Your task to perform on an android device: star an email in the gmail app Image 0: 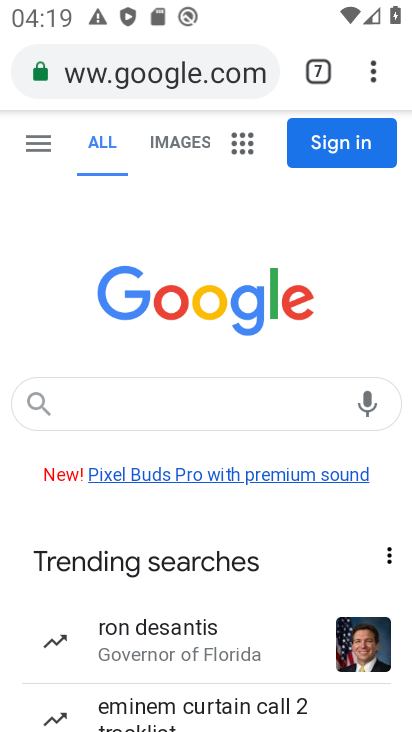
Step 0: press back button
Your task to perform on an android device: star an email in the gmail app Image 1: 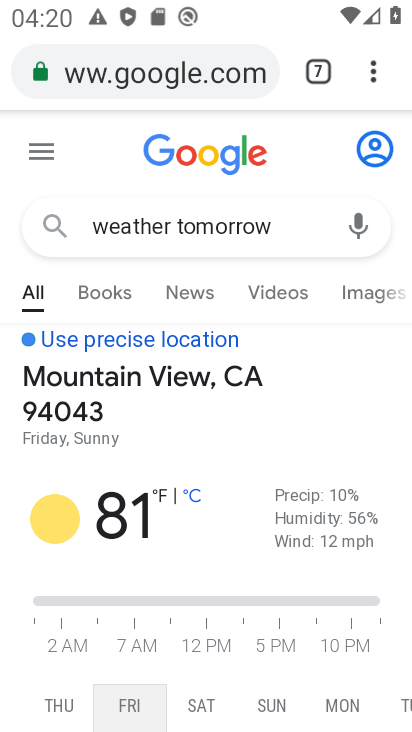
Step 1: press home button
Your task to perform on an android device: star an email in the gmail app Image 2: 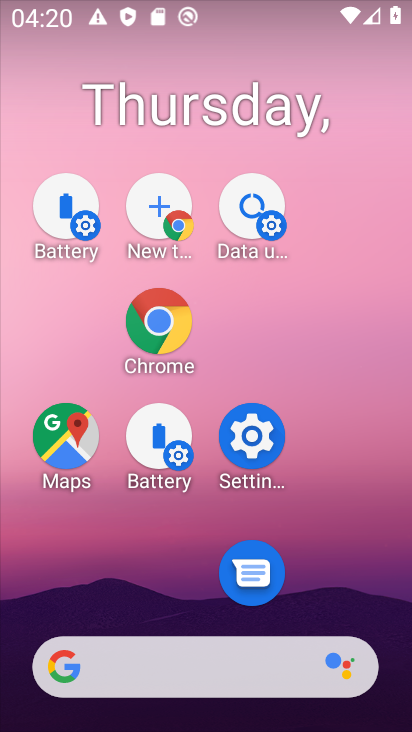
Step 2: drag from (274, 500) to (211, 92)
Your task to perform on an android device: star an email in the gmail app Image 3: 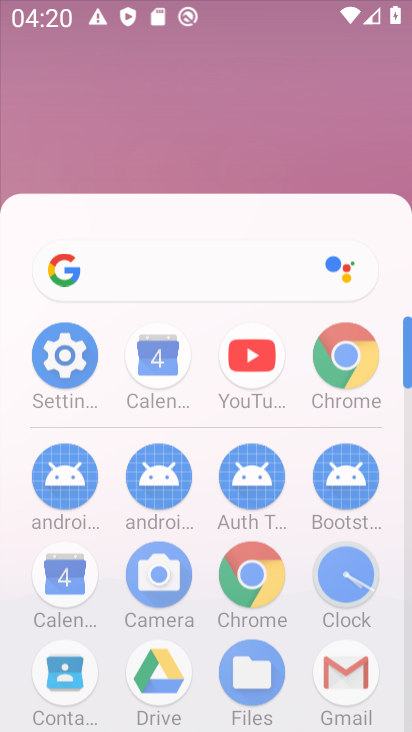
Step 3: drag from (297, 465) to (242, 203)
Your task to perform on an android device: star an email in the gmail app Image 4: 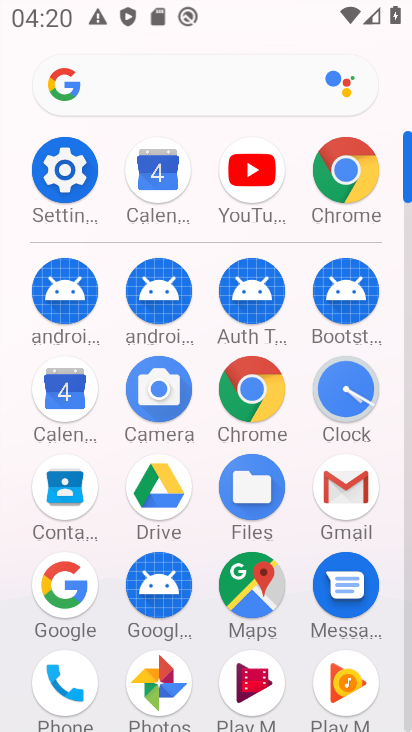
Step 4: drag from (287, 393) to (218, 199)
Your task to perform on an android device: star an email in the gmail app Image 5: 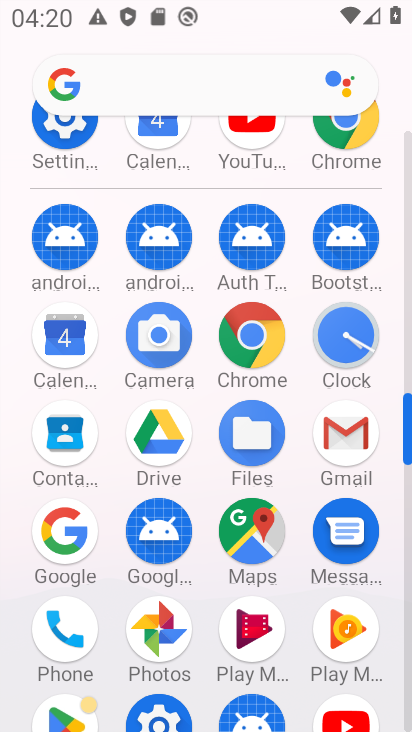
Step 5: click (349, 447)
Your task to perform on an android device: star an email in the gmail app Image 6: 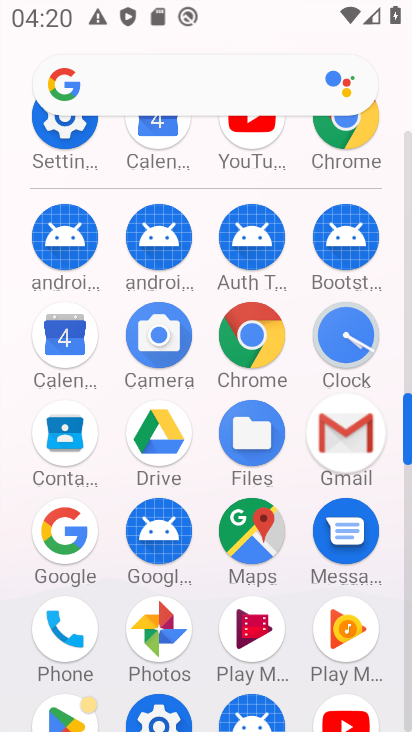
Step 6: click (349, 451)
Your task to perform on an android device: star an email in the gmail app Image 7: 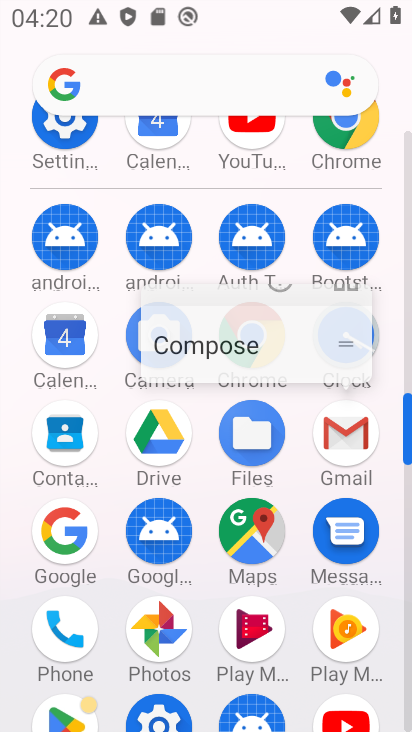
Step 7: click (348, 452)
Your task to perform on an android device: star an email in the gmail app Image 8: 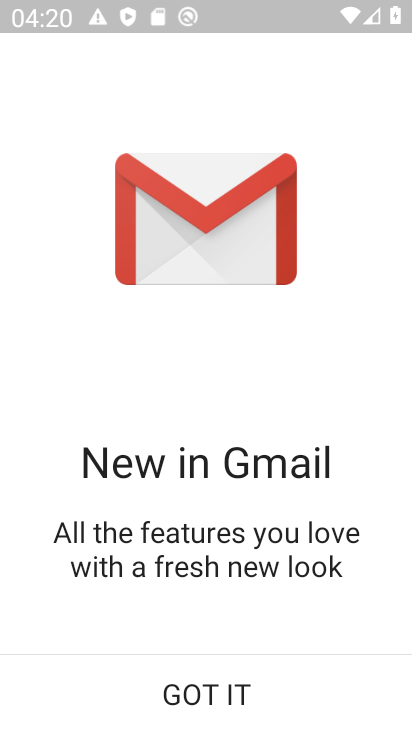
Step 8: click (242, 692)
Your task to perform on an android device: star an email in the gmail app Image 9: 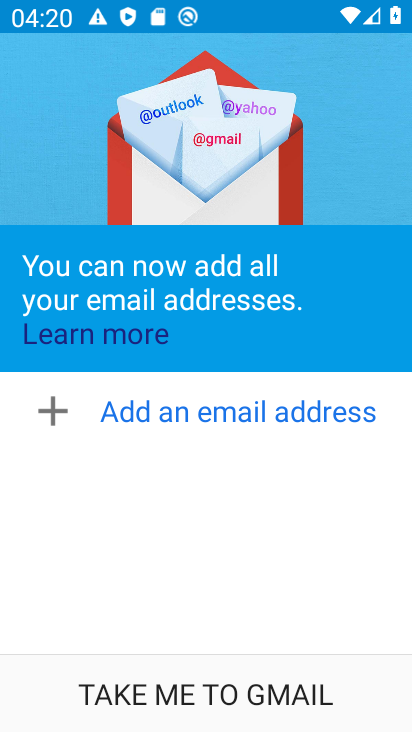
Step 9: press back button
Your task to perform on an android device: star an email in the gmail app Image 10: 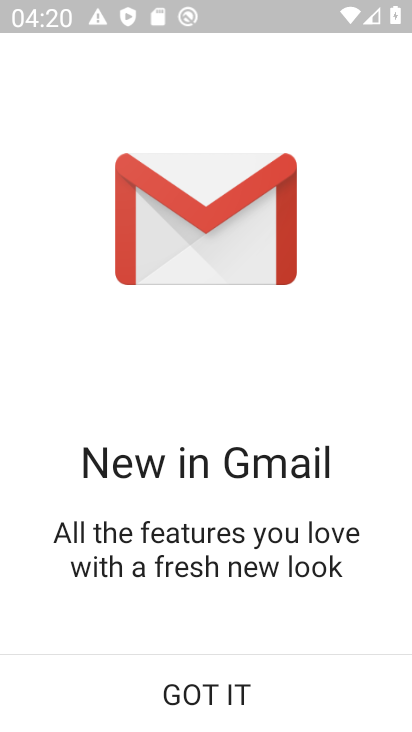
Step 10: click (215, 679)
Your task to perform on an android device: star an email in the gmail app Image 11: 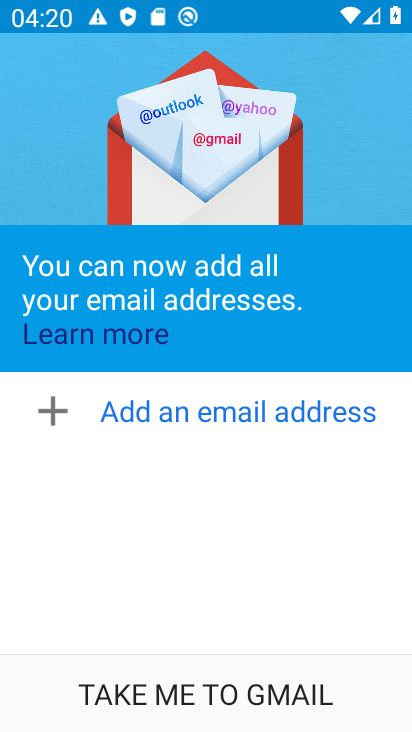
Step 11: press back button
Your task to perform on an android device: star an email in the gmail app Image 12: 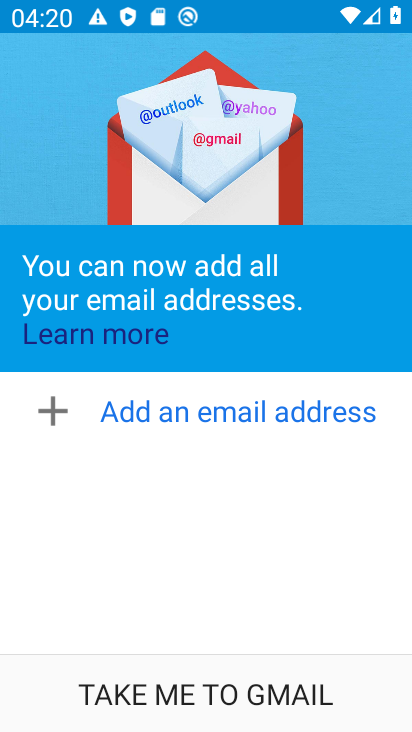
Step 12: press back button
Your task to perform on an android device: star an email in the gmail app Image 13: 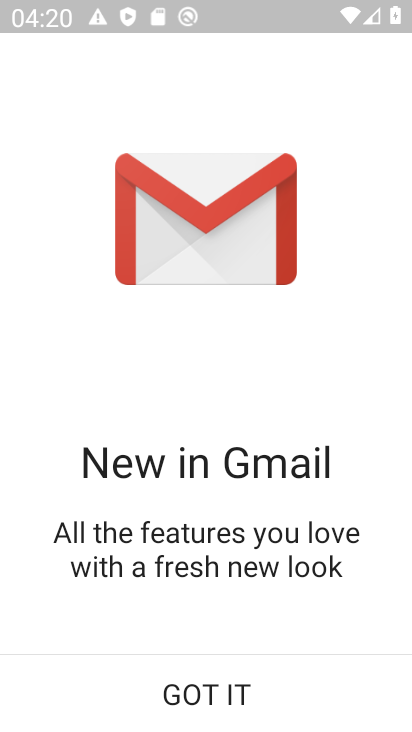
Step 13: press back button
Your task to perform on an android device: star an email in the gmail app Image 14: 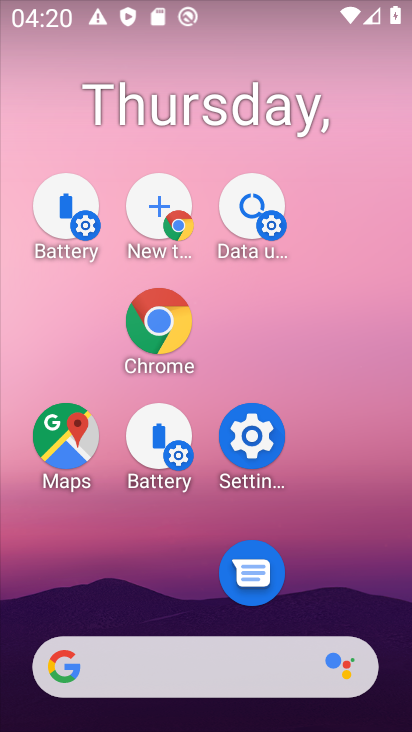
Step 14: drag from (261, 699) to (181, 155)
Your task to perform on an android device: star an email in the gmail app Image 15: 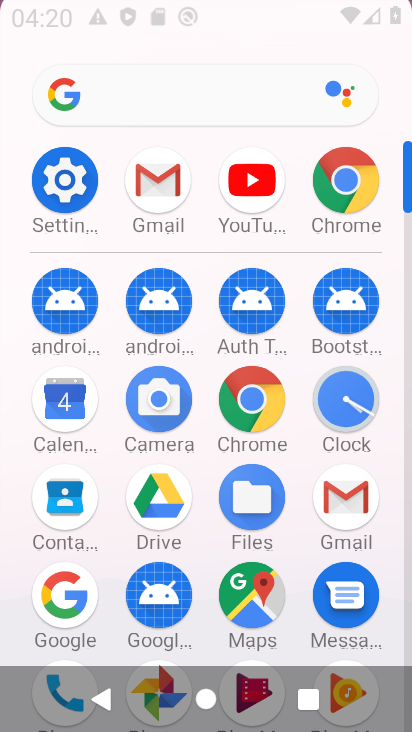
Step 15: drag from (153, 598) to (133, 181)
Your task to perform on an android device: star an email in the gmail app Image 16: 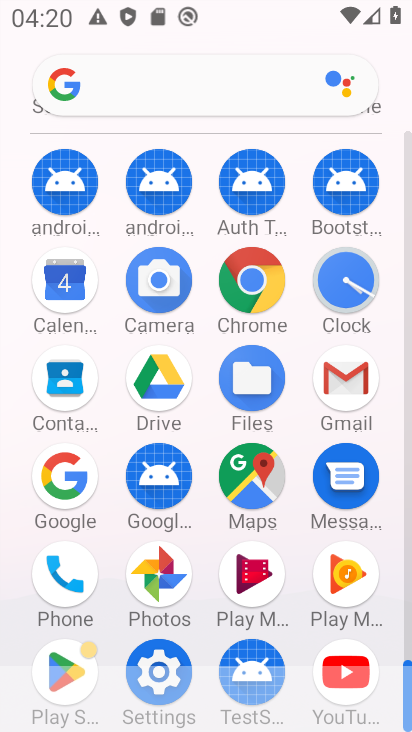
Step 16: click (326, 383)
Your task to perform on an android device: star an email in the gmail app Image 17: 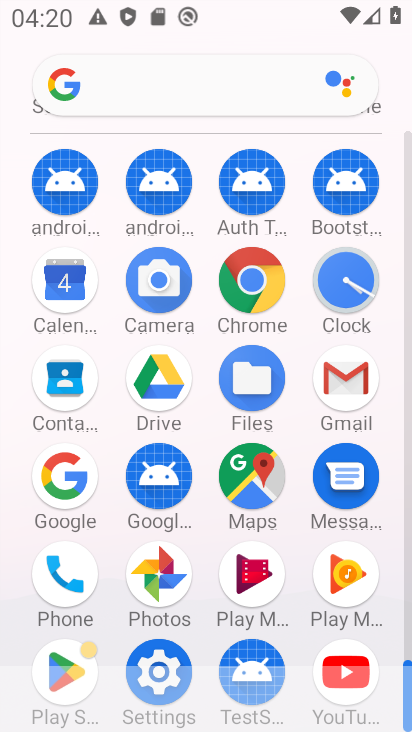
Step 17: click (326, 383)
Your task to perform on an android device: star an email in the gmail app Image 18: 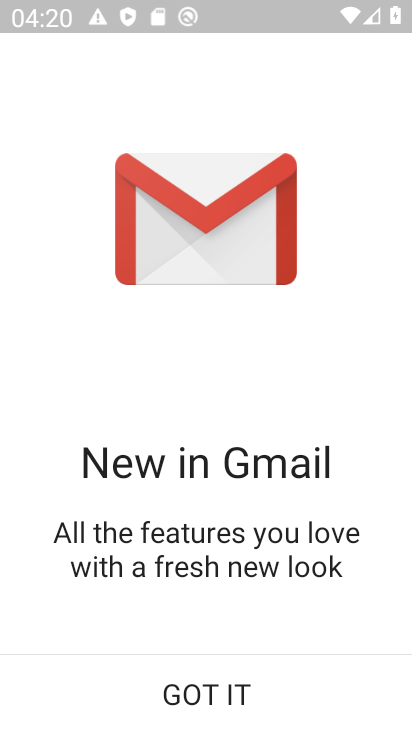
Step 18: click (231, 690)
Your task to perform on an android device: star an email in the gmail app Image 19: 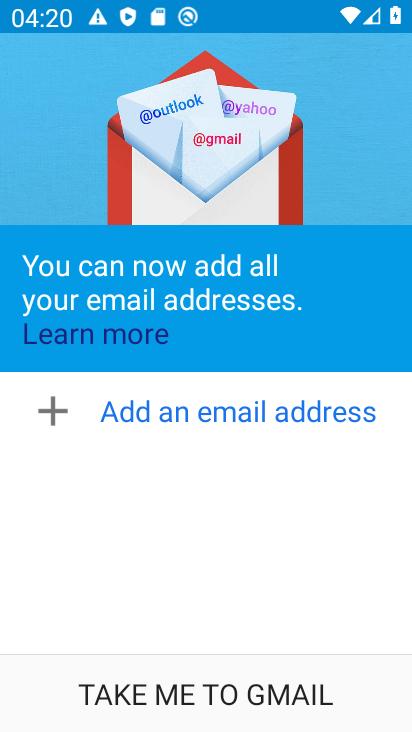
Step 19: task complete